Your task to perform on an android device: Open Yahoo.com Image 0: 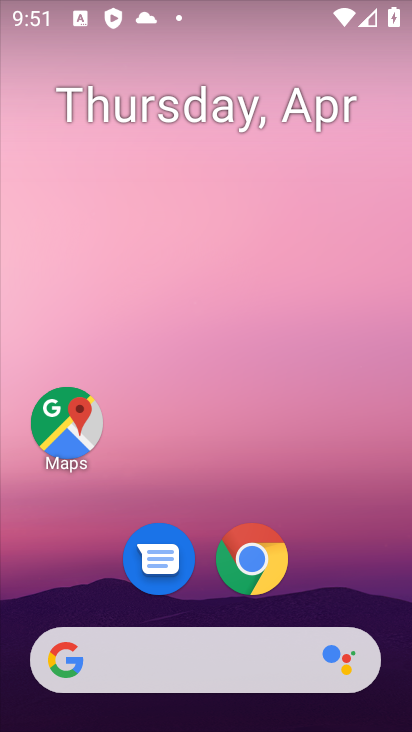
Step 0: click (286, 662)
Your task to perform on an android device: Open Yahoo.com Image 1: 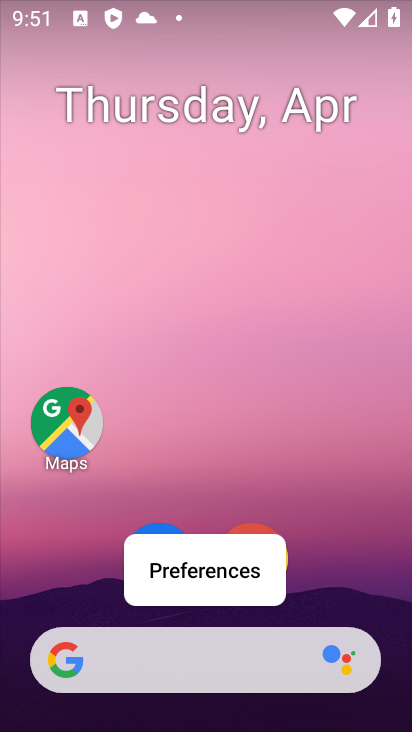
Step 1: click (178, 671)
Your task to perform on an android device: Open Yahoo.com Image 2: 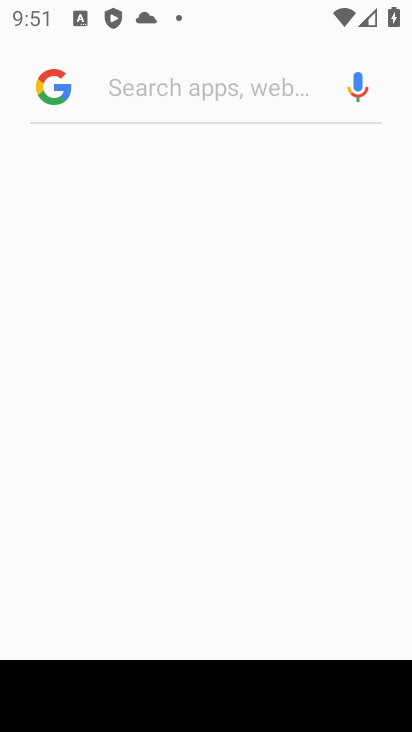
Step 2: click (209, 676)
Your task to perform on an android device: Open Yahoo.com Image 3: 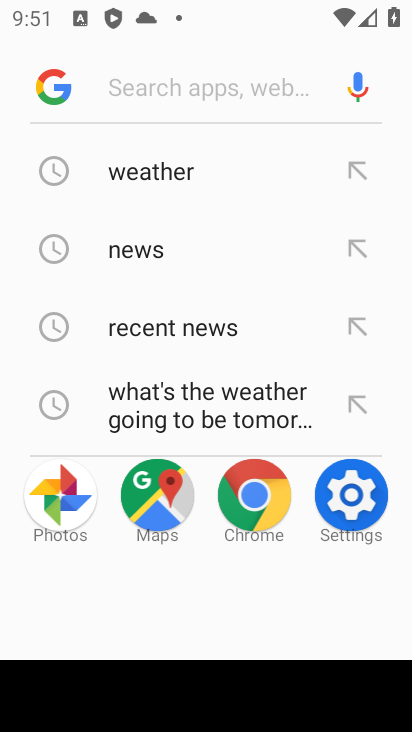
Step 3: type "yahoo.com"
Your task to perform on an android device: Open Yahoo.com Image 4: 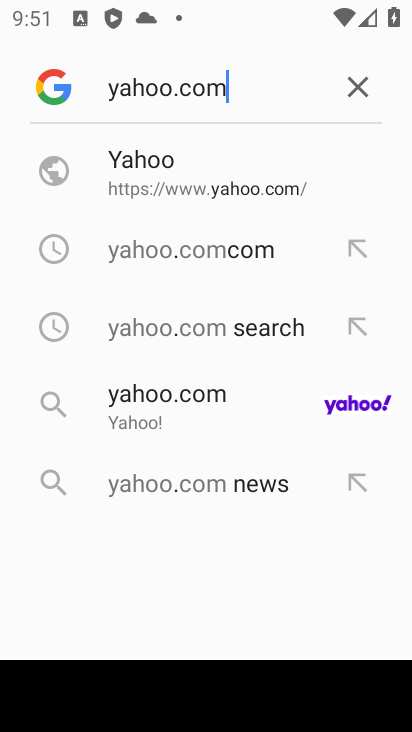
Step 4: click (243, 188)
Your task to perform on an android device: Open Yahoo.com Image 5: 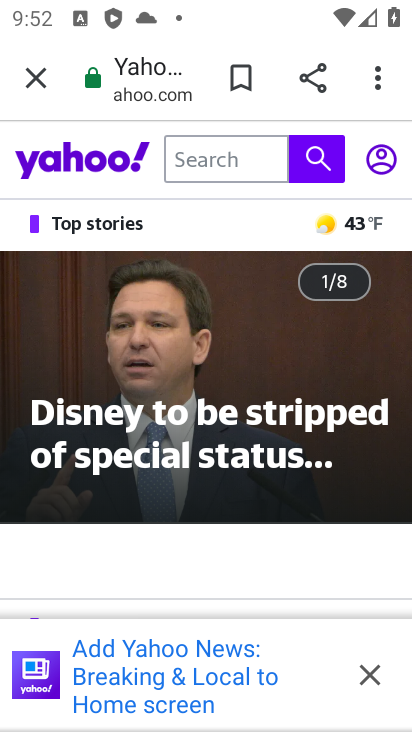
Step 5: task complete